Your task to perform on an android device: Is it going to rain today? Image 0: 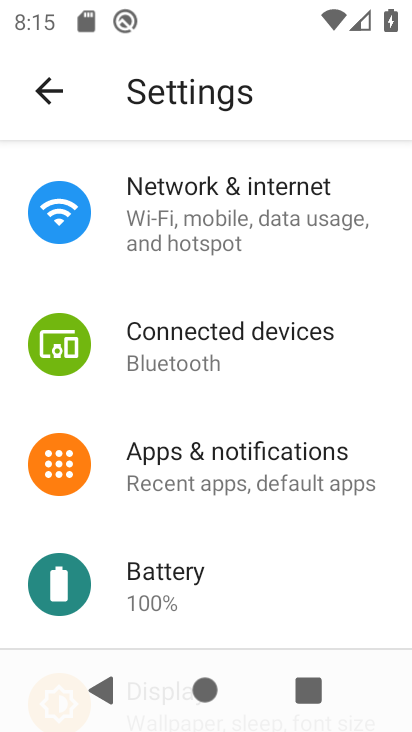
Step 0: press home button
Your task to perform on an android device: Is it going to rain today? Image 1: 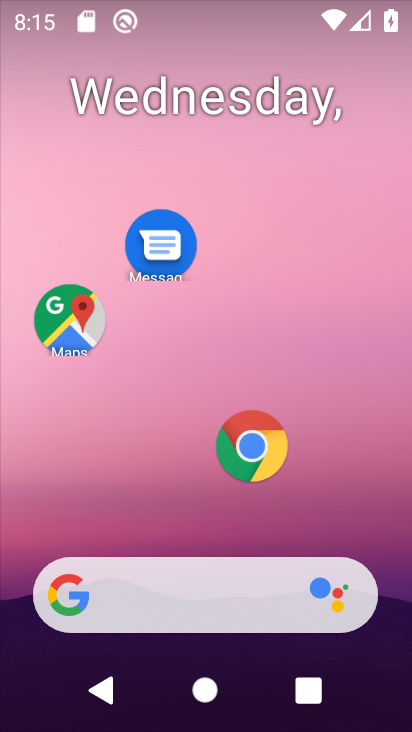
Step 1: drag from (11, 178) to (403, 213)
Your task to perform on an android device: Is it going to rain today? Image 2: 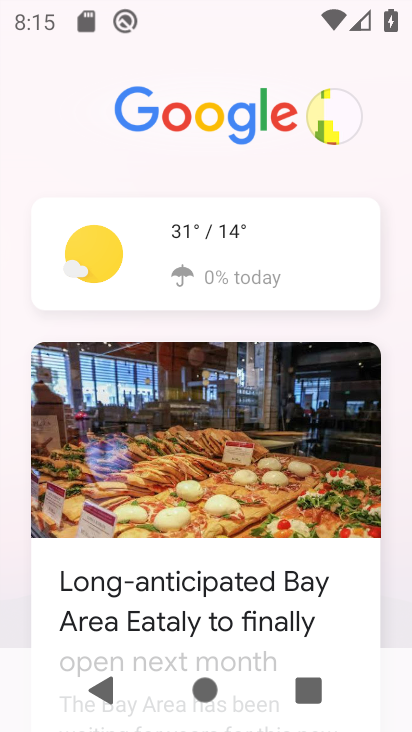
Step 2: click (168, 237)
Your task to perform on an android device: Is it going to rain today? Image 3: 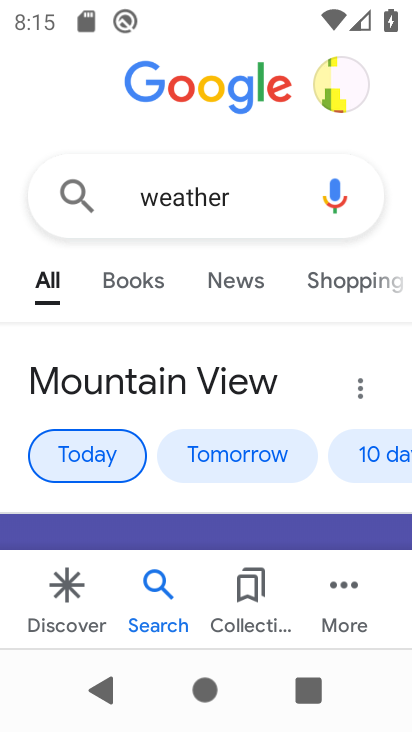
Step 3: task complete